Your task to perform on an android device: Go to Yahoo.com Image 0: 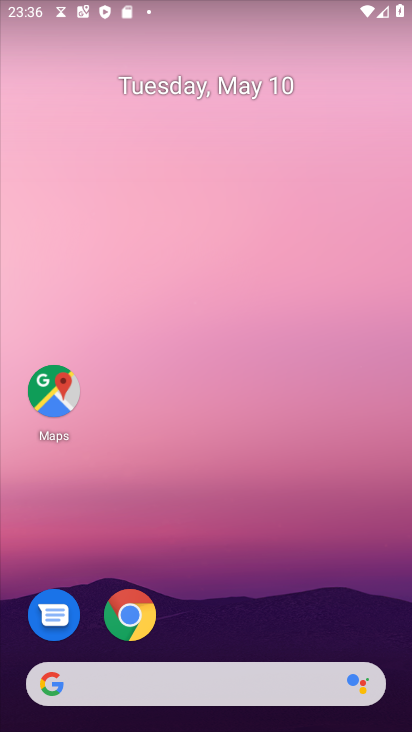
Step 0: click (128, 610)
Your task to perform on an android device: Go to Yahoo.com Image 1: 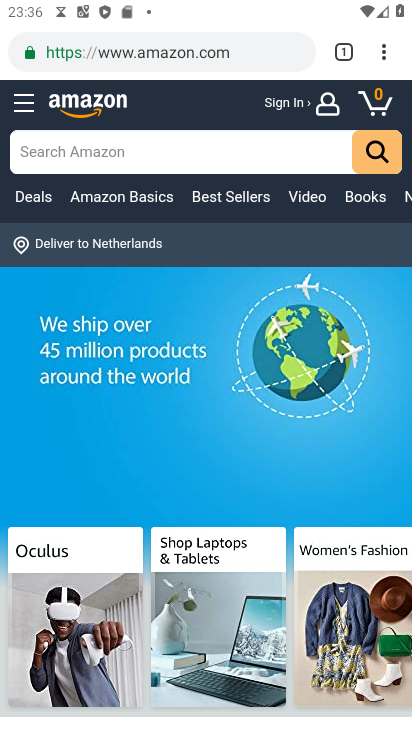
Step 1: click (272, 59)
Your task to perform on an android device: Go to Yahoo.com Image 2: 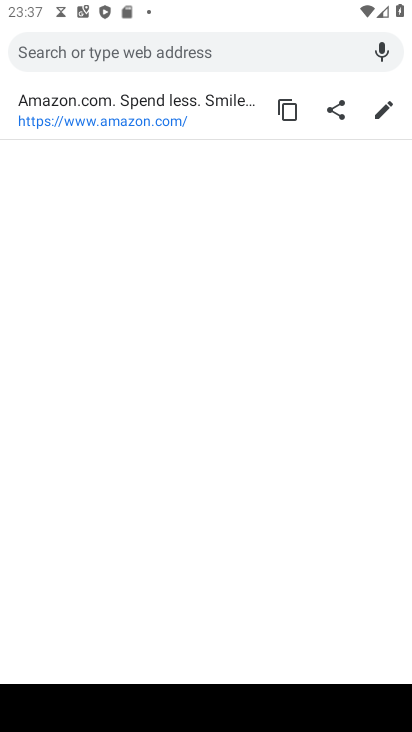
Step 2: type "Yahoo.com"
Your task to perform on an android device: Go to Yahoo.com Image 3: 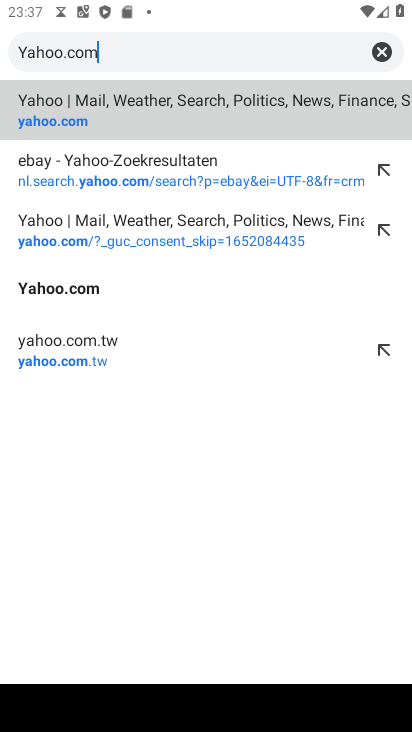
Step 3: click (92, 294)
Your task to perform on an android device: Go to Yahoo.com Image 4: 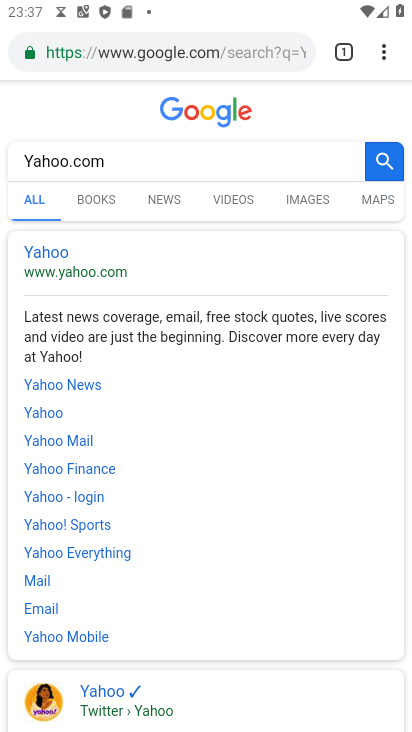
Step 4: click (67, 279)
Your task to perform on an android device: Go to Yahoo.com Image 5: 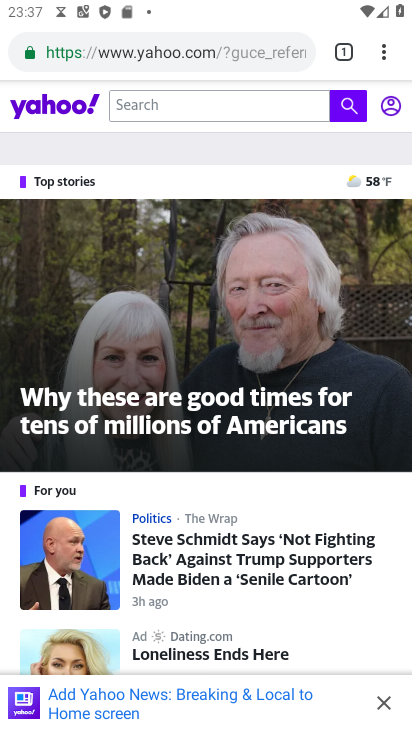
Step 5: task complete